Your task to perform on an android device: Open Maps and search for coffee Image 0: 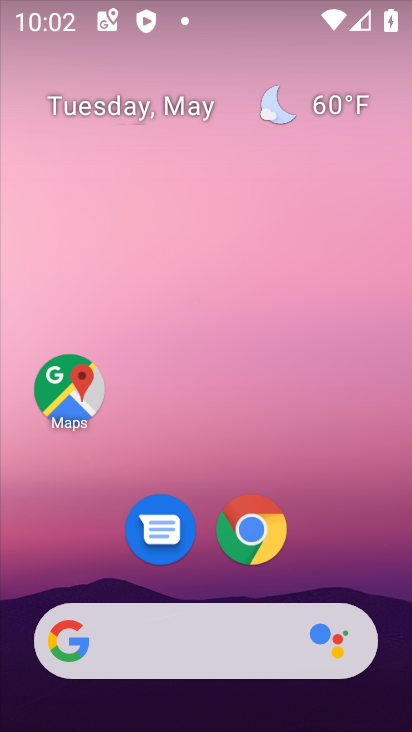
Step 0: click (80, 400)
Your task to perform on an android device: Open Maps and search for coffee Image 1: 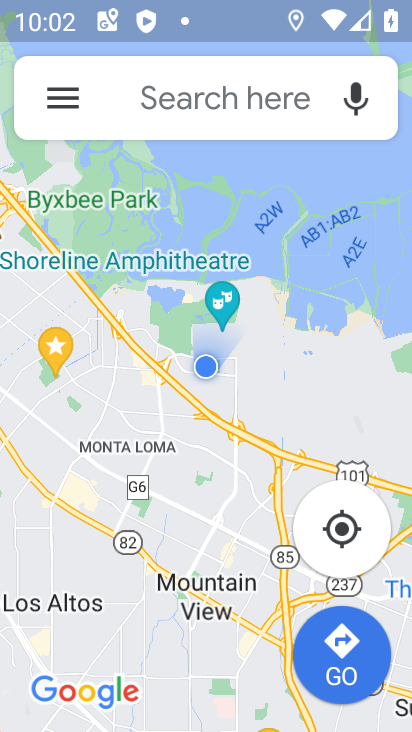
Step 1: click (245, 94)
Your task to perform on an android device: Open Maps and search for coffee Image 2: 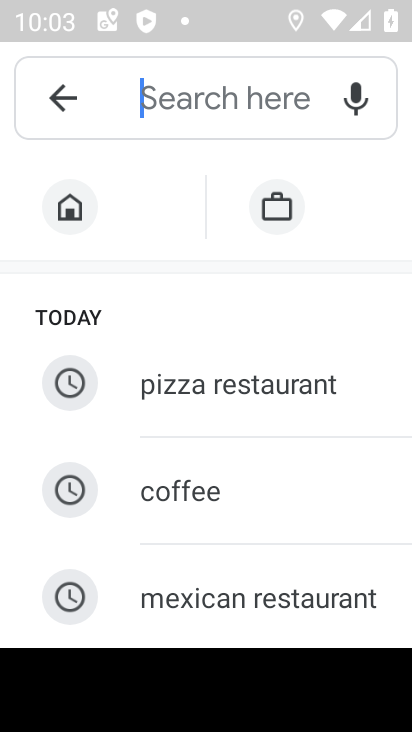
Step 2: click (164, 482)
Your task to perform on an android device: Open Maps and search for coffee Image 3: 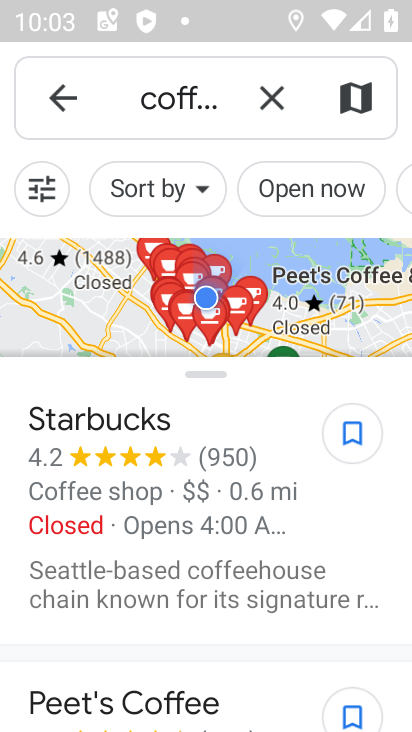
Step 3: task complete